Your task to perform on an android device: open app "PlayWell" (install if not already installed), go to login, and select forgot password Image 0: 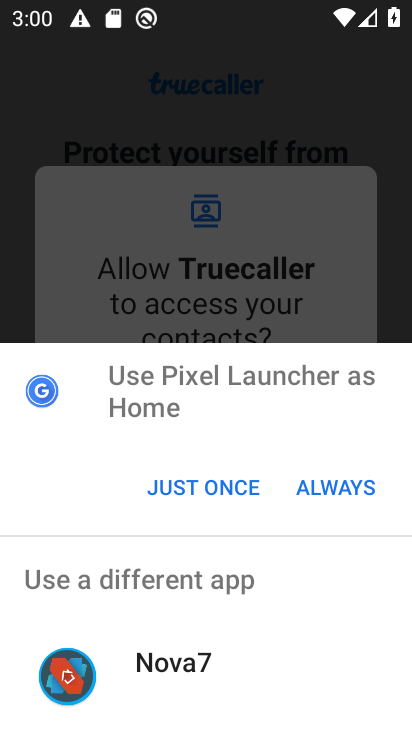
Step 0: click (236, 481)
Your task to perform on an android device: open app "PlayWell" (install if not already installed), go to login, and select forgot password Image 1: 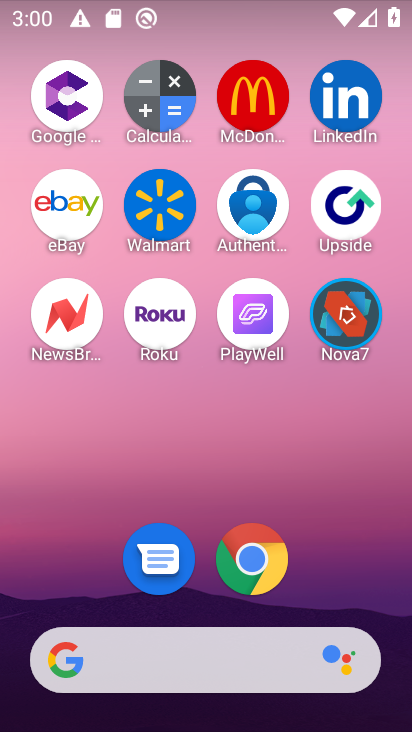
Step 1: drag from (188, 458) to (201, 122)
Your task to perform on an android device: open app "PlayWell" (install if not already installed), go to login, and select forgot password Image 2: 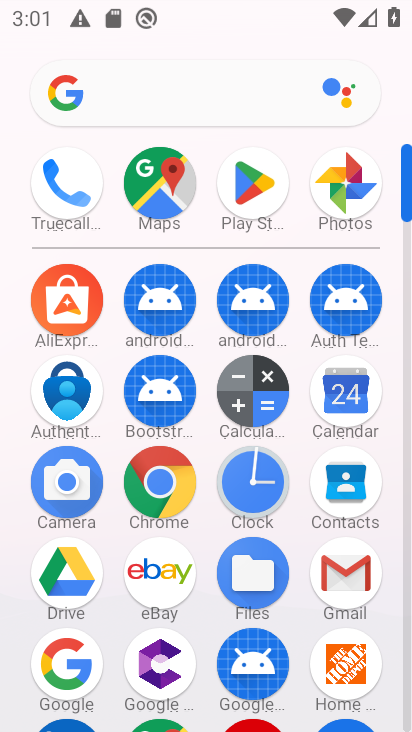
Step 2: click (259, 192)
Your task to perform on an android device: open app "PlayWell" (install if not already installed), go to login, and select forgot password Image 3: 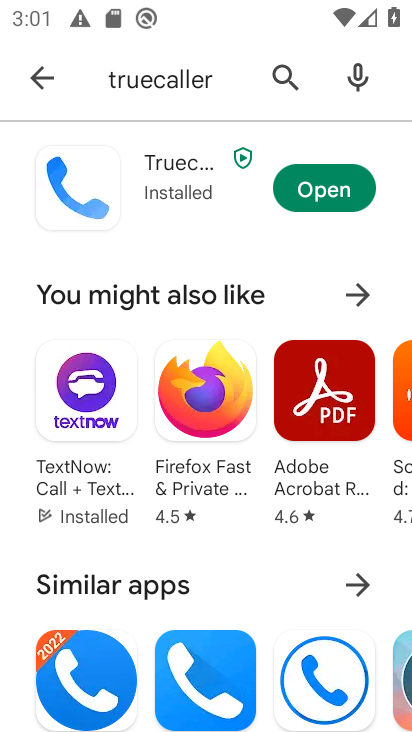
Step 3: click (288, 78)
Your task to perform on an android device: open app "PlayWell" (install if not already installed), go to login, and select forgot password Image 4: 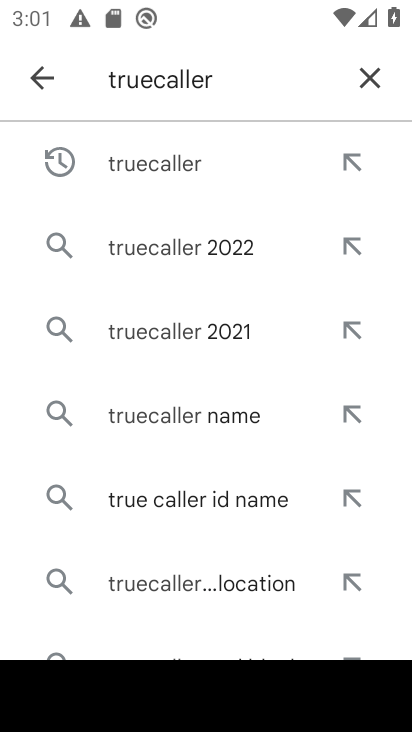
Step 4: click (362, 78)
Your task to perform on an android device: open app "PlayWell" (install if not already installed), go to login, and select forgot password Image 5: 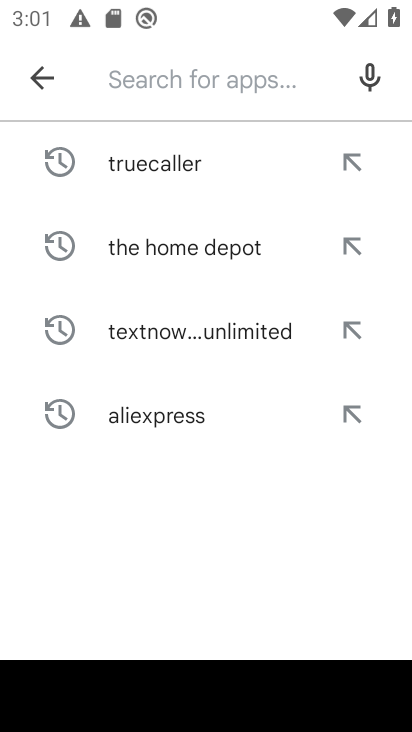
Step 5: type "PlayWell"
Your task to perform on an android device: open app "PlayWell" (install if not already installed), go to login, and select forgot password Image 6: 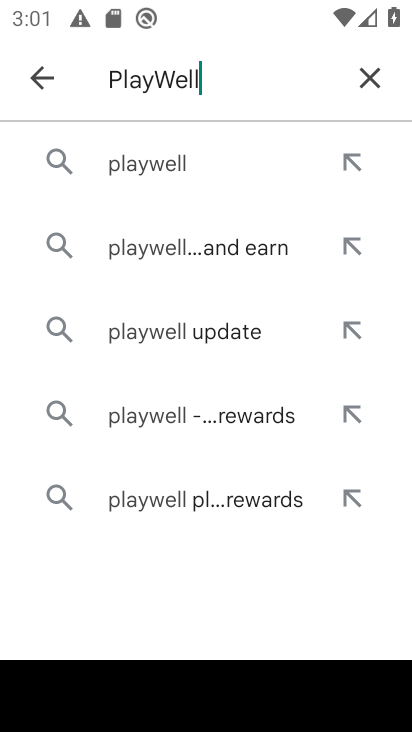
Step 6: click (170, 161)
Your task to perform on an android device: open app "PlayWell" (install if not already installed), go to login, and select forgot password Image 7: 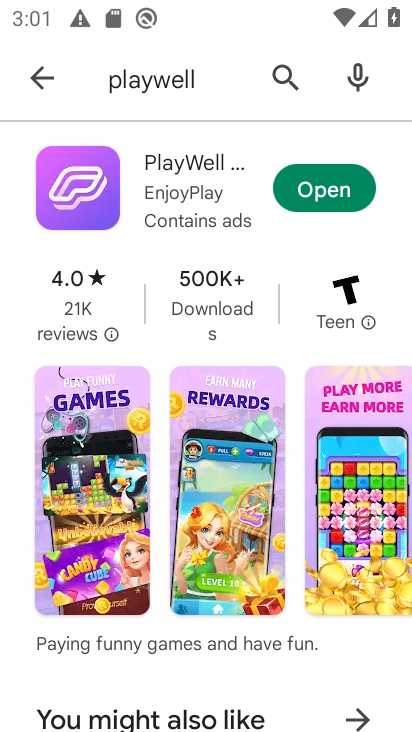
Step 7: click (316, 189)
Your task to perform on an android device: open app "PlayWell" (install if not already installed), go to login, and select forgot password Image 8: 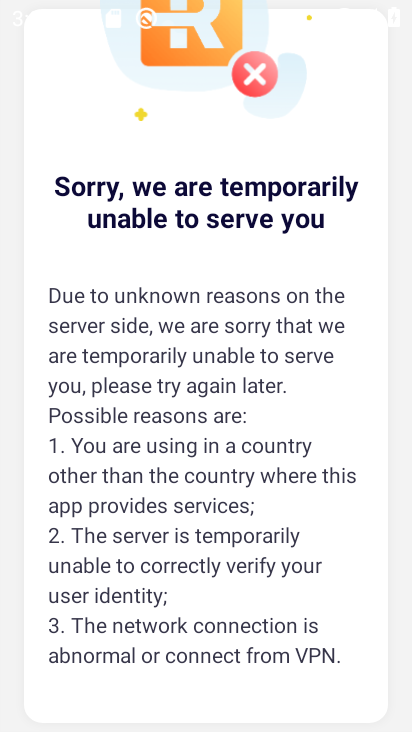
Step 8: task complete